Your task to perform on an android device: turn off sleep mode Image 0: 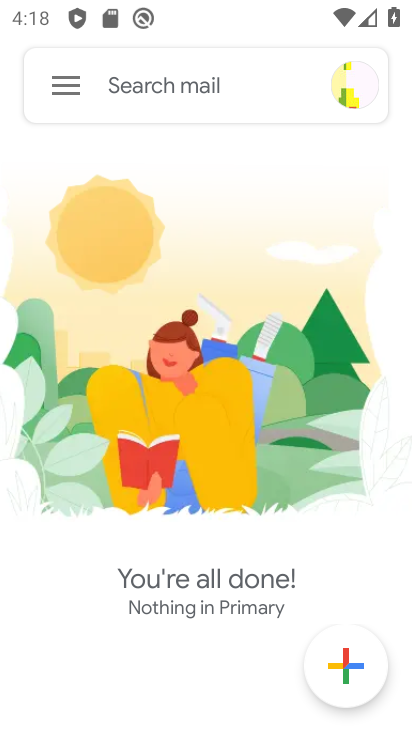
Step 0: press back button
Your task to perform on an android device: turn off sleep mode Image 1: 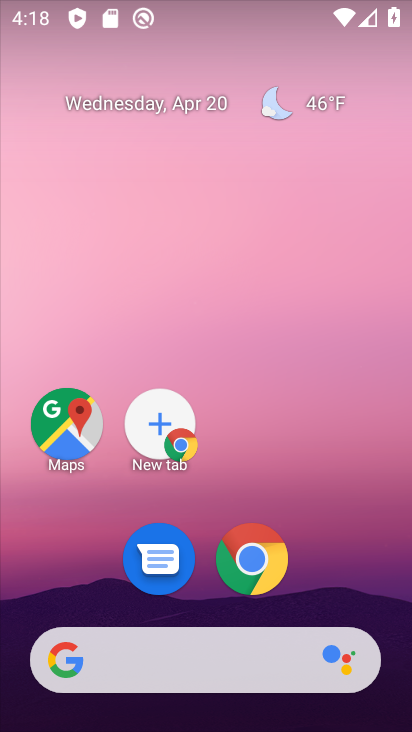
Step 1: drag from (325, 549) to (341, 203)
Your task to perform on an android device: turn off sleep mode Image 2: 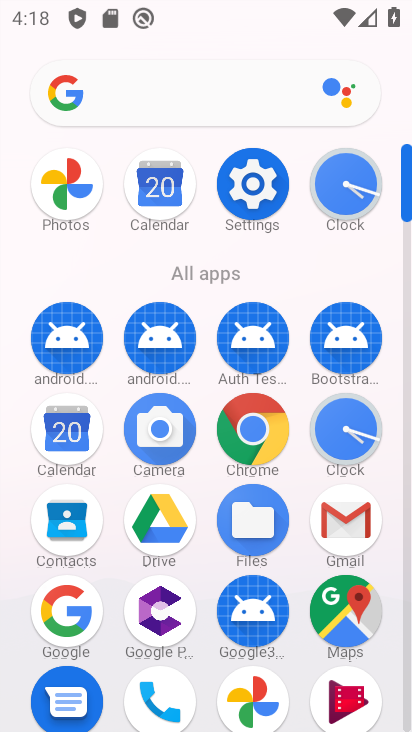
Step 2: click (260, 216)
Your task to perform on an android device: turn off sleep mode Image 3: 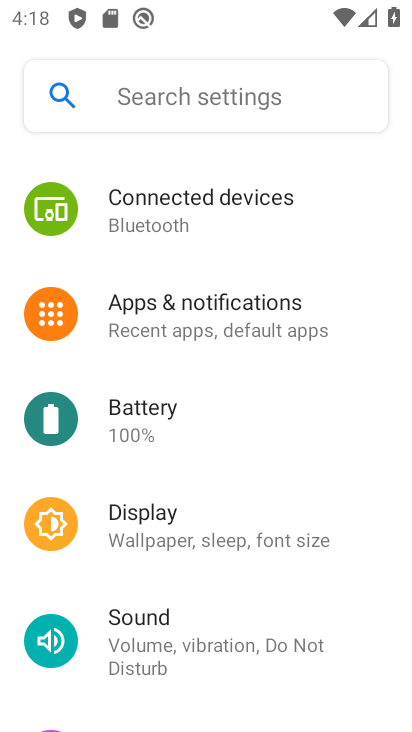
Step 3: click (194, 545)
Your task to perform on an android device: turn off sleep mode Image 4: 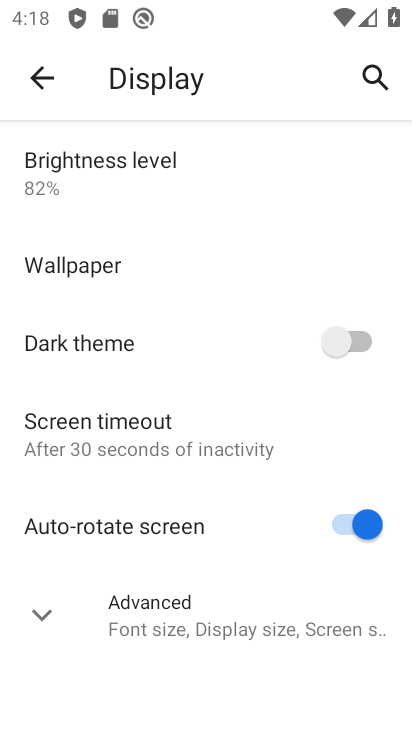
Step 4: drag from (194, 545) to (234, 228)
Your task to perform on an android device: turn off sleep mode Image 5: 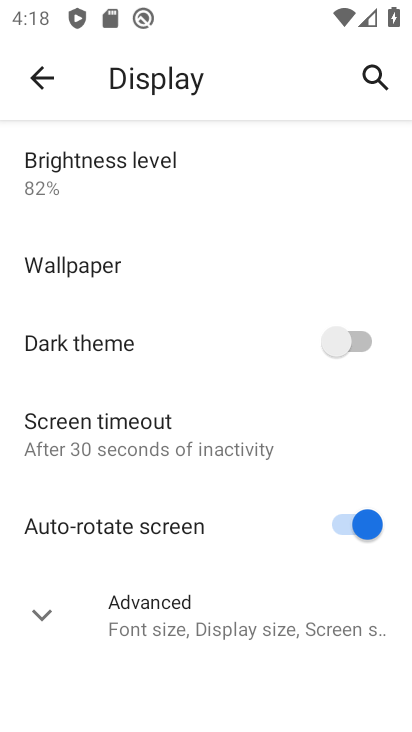
Step 5: click (151, 599)
Your task to perform on an android device: turn off sleep mode Image 6: 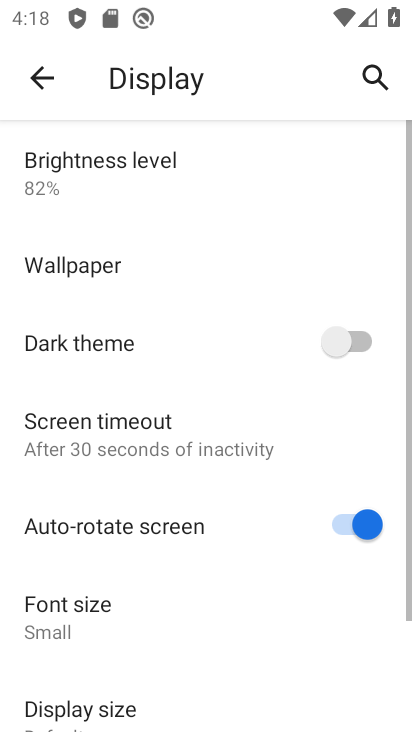
Step 6: drag from (151, 596) to (214, 345)
Your task to perform on an android device: turn off sleep mode Image 7: 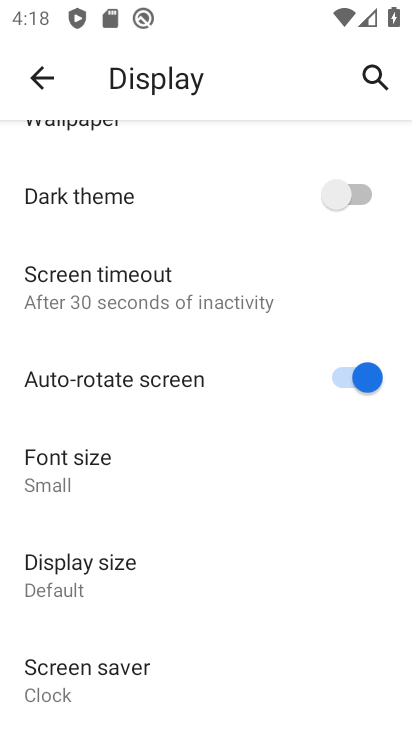
Step 7: click (214, 294)
Your task to perform on an android device: turn off sleep mode Image 8: 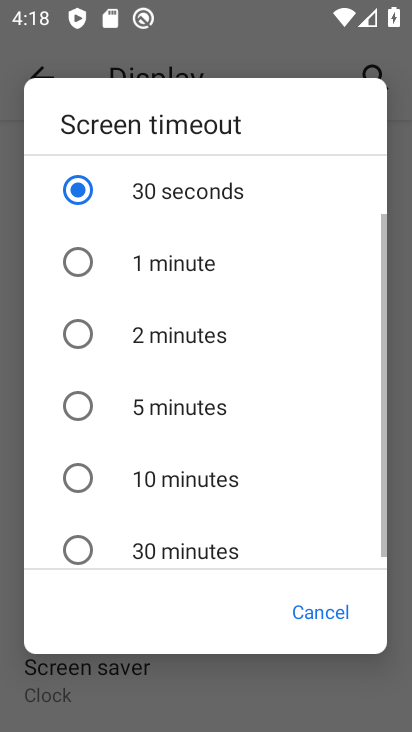
Step 8: click (214, 294)
Your task to perform on an android device: turn off sleep mode Image 9: 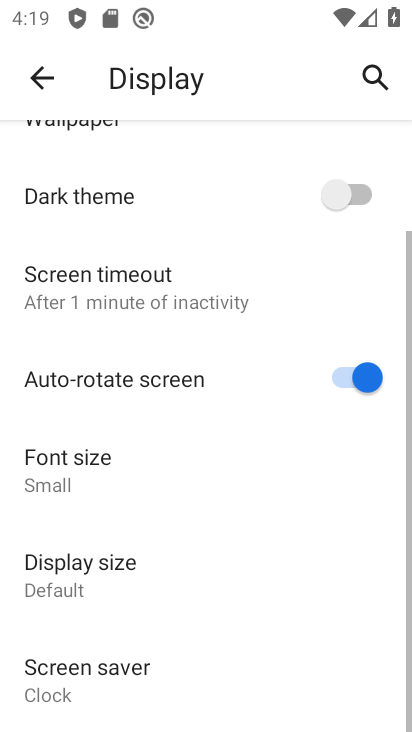
Step 9: task complete